Your task to perform on an android device: Open the calendar and show me this week's events Image 0: 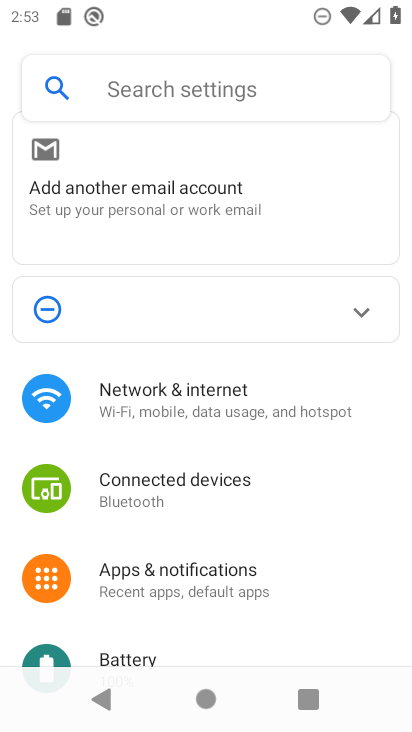
Step 0: press home button
Your task to perform on an android device: Open the calendar and show me this week's events Image 1: 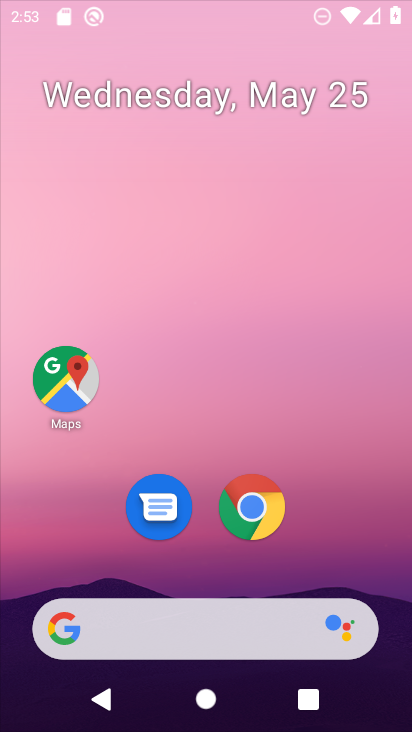
Step 1: drag from (174, 668) to (221, 239)
Your task to perform on an android device: Open the calendar and show me this week's events Image 2: 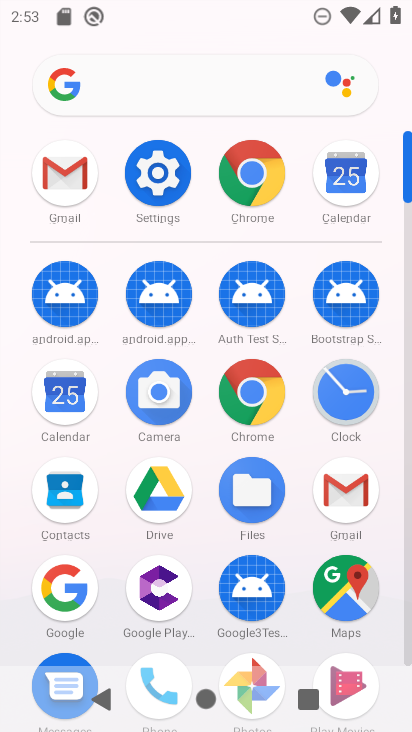
Step 2: click (78, 409)
Your task to perform on an android device: Open the calendar and show me this week's events Image 3: 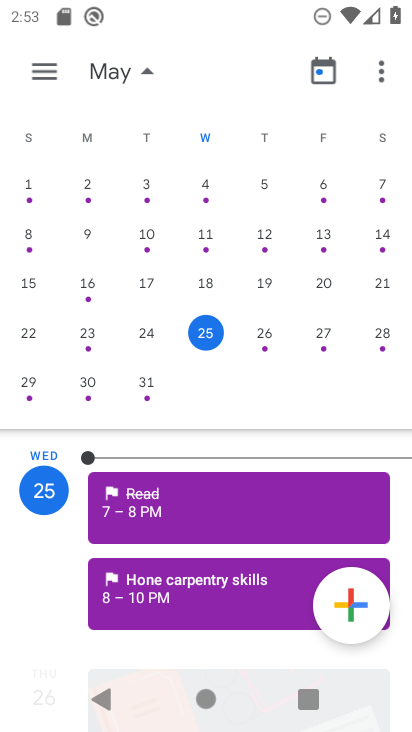
Step 3: click (28, 381)
Your task to perform on an android device: Open the calendar and show me this week's events Image 4: 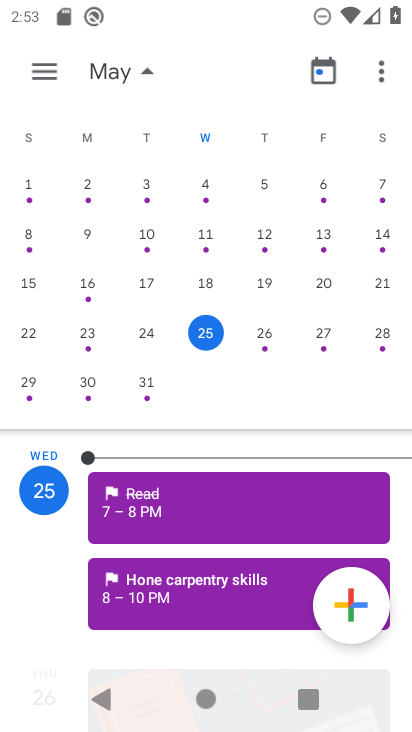
Step 4: click (28, 386)
Your task to perform on an android device: Open the calendar and show me this week's events Image 5: 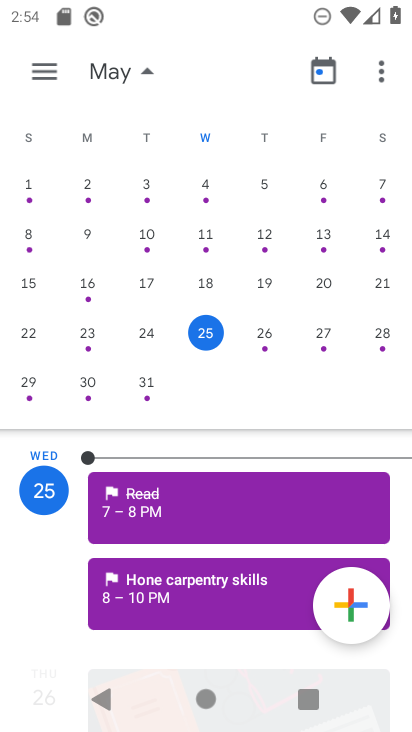
Step 5: click (36, 399)
Your task to perform on an android device: Open the calendar and show me this week's events Image 6: 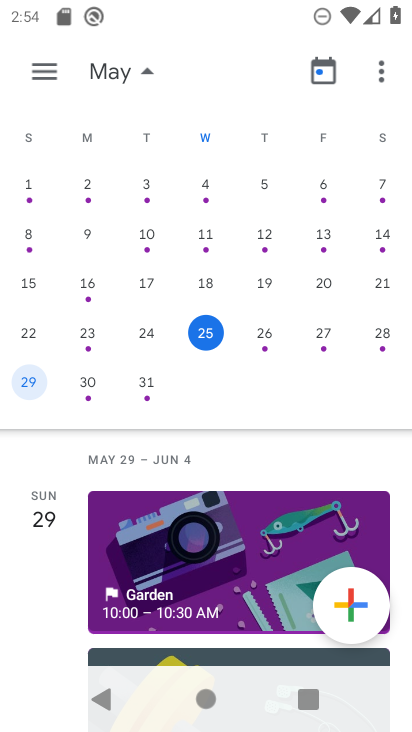
Step 6: task complete